Your task to perform on an android device: uninstall "Google Duo" Image 0: 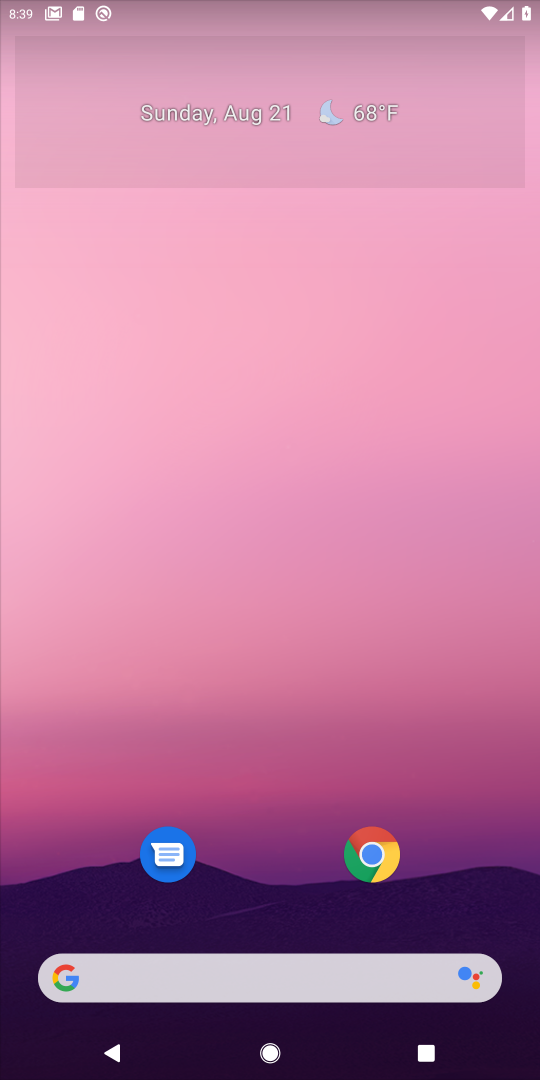
Step 0: drag from (263, 937) to (411, 1)
Your task to perform on an android device: uninstall "Google Duo" Image 1: 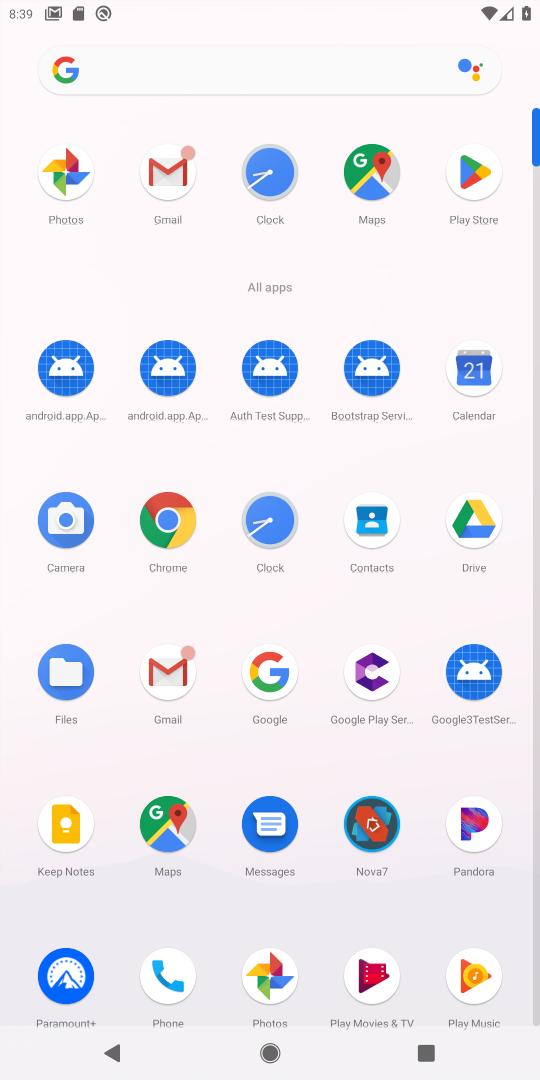
Step 1: click (486, 171)
Your task to perform on an android device: uninstall "Google Duo" Image 2: 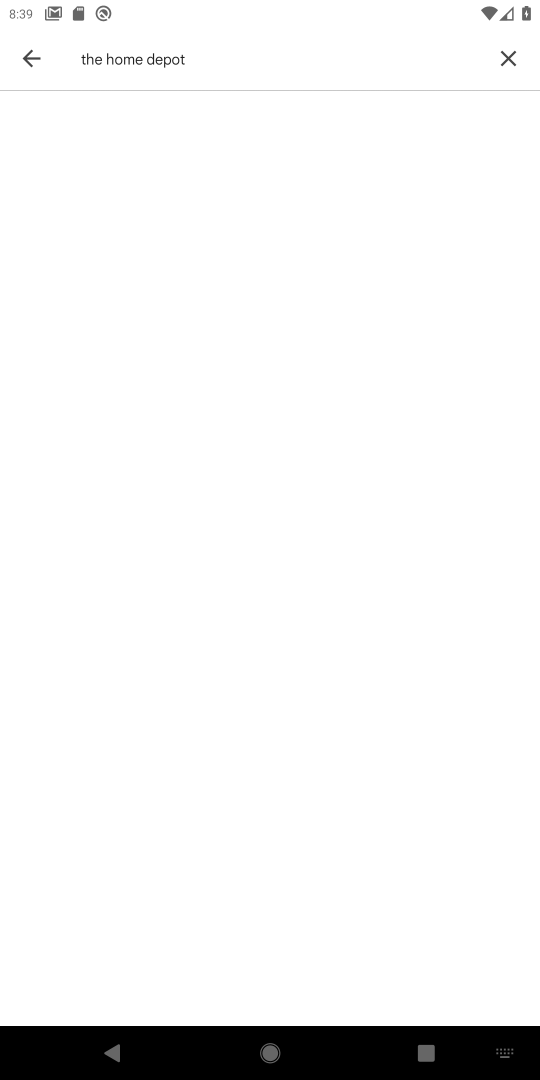
Step 2: click (515, 44)
Your task to perform on an android device: uninstall "Google Duo" Image 3: 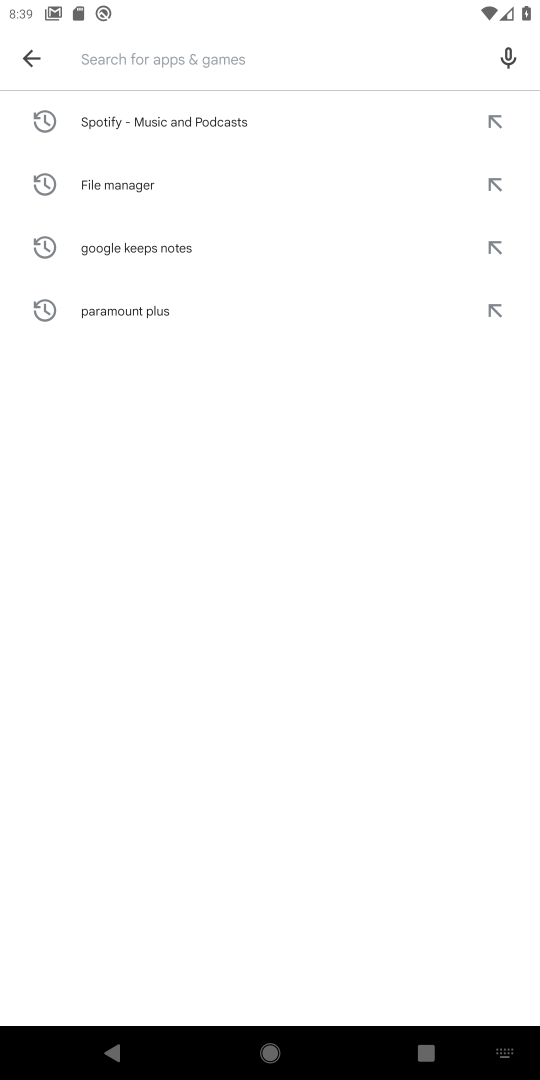
Step 3: type "google duo"
Your task to perform on an android device: uninstall "Google Duo" Image 4: 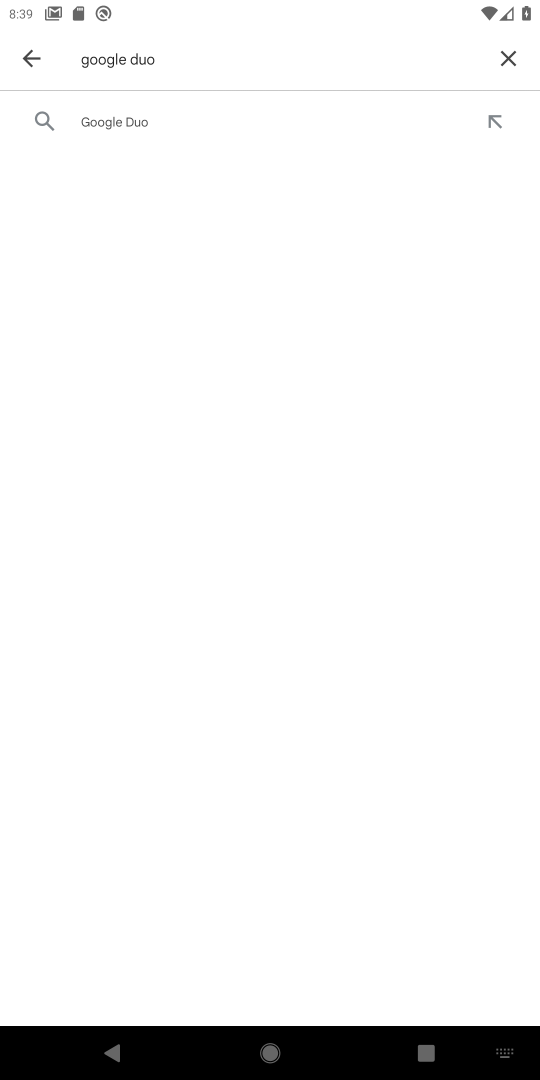
Step 4: click (137, 129)
Your task to perform on an android device: uninstall "Google Duo" Image 5: 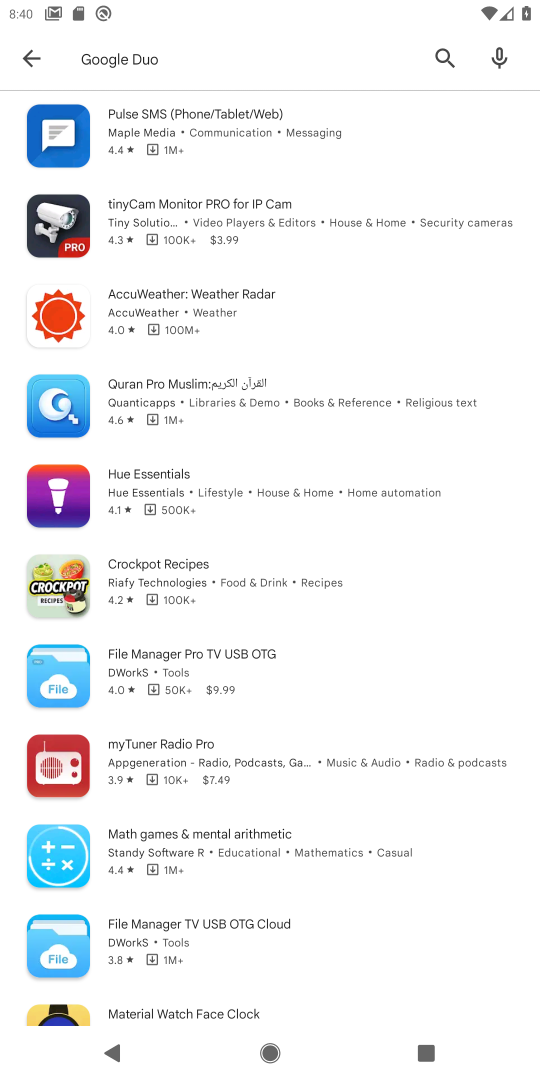
Step 5: task complete